Your task to perform on an android device: toggle improve location accuracy Image 0: 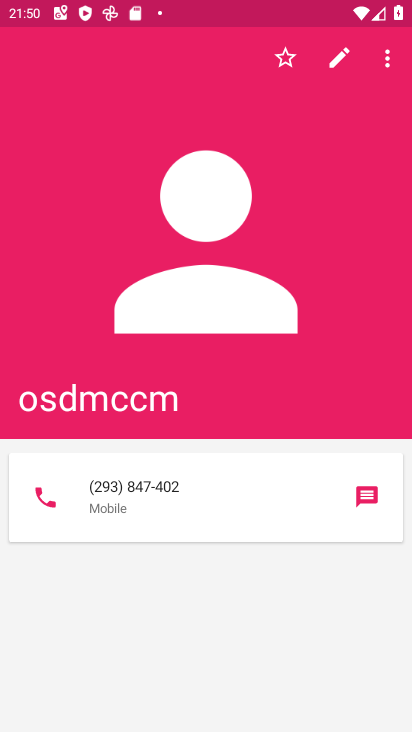
Step 0: press home button
Your task to perform on an android device: toggle improve location accuracy Image 1: 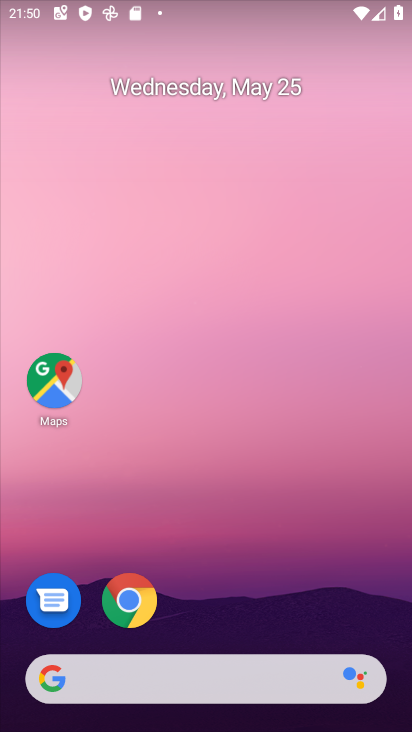
Step 1: drag from (353, 620) to (261, 208)
Your task to perform on an android device: toggle improve location accuracy Image 2: 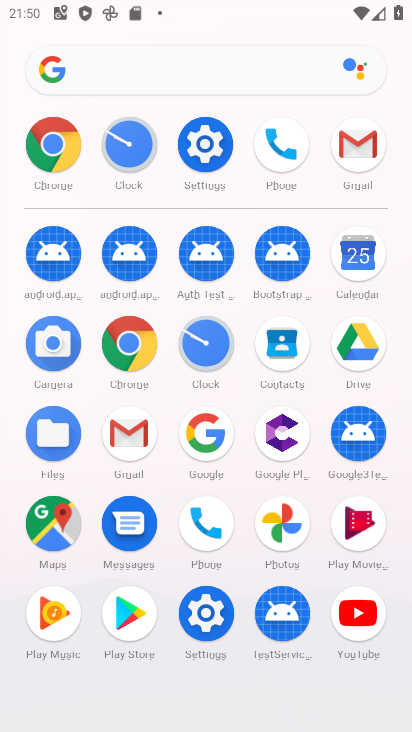
Step 2: click (206, 142)
Your task to perform on an android device: toggle improve location accuracy Image 3: 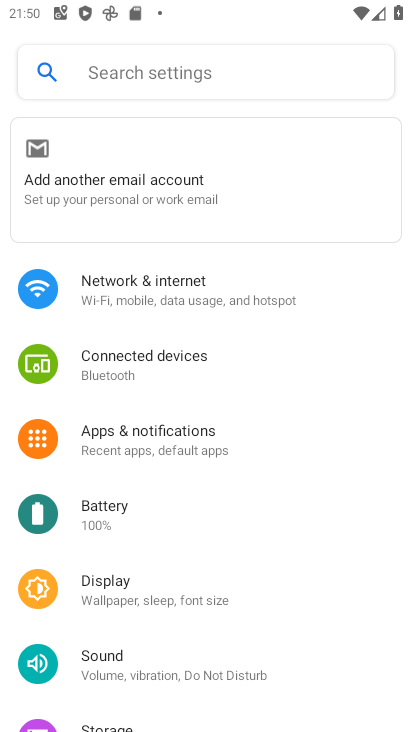
Step 3: drag from (279, 469) to (295, 364)
Your task to perform on an android device: toggle improve location accuracy Image 4: 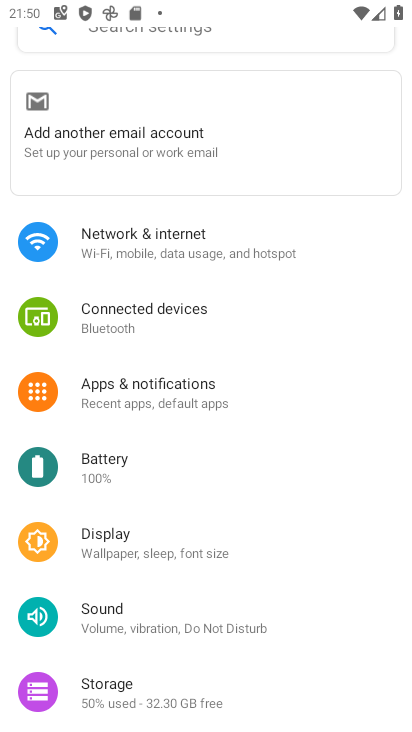
Step 4: drag from (258, 594) to (313, 293)
Your task to perform on an android device: toggle improve location accuracy Image 5: 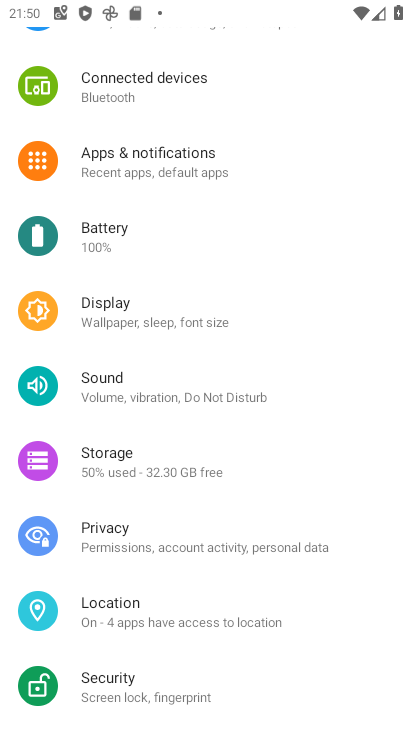
Step 5: click (212, 620)
Your task to perform on an android device: toggle improve location accuracy Image 6: 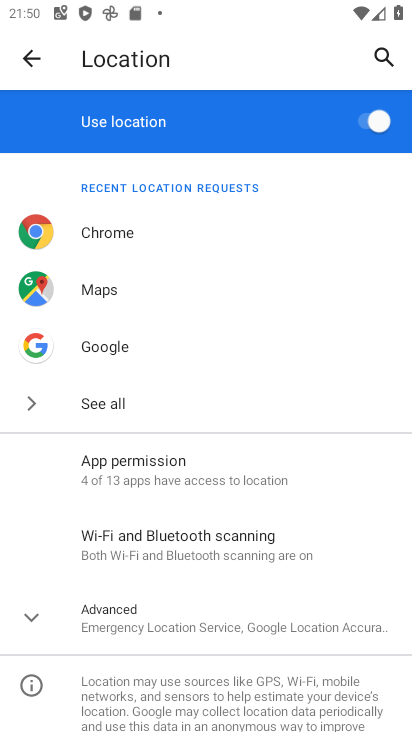
Step 6: click (212, 620)
Your task to perform on an android device: toggle improve location accuracy Image 7: 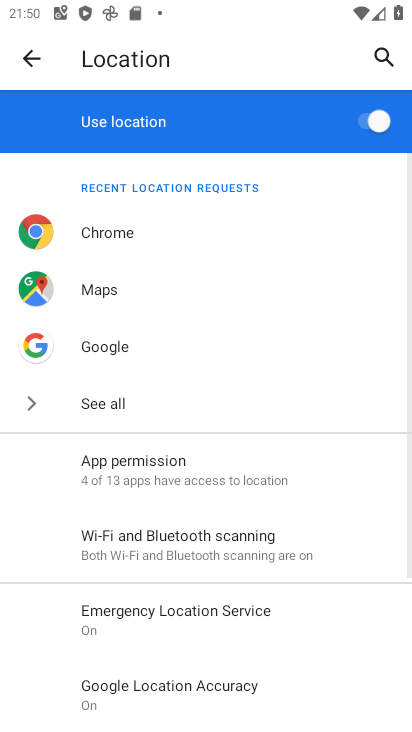
Step 7: drag from (240, 658) to (291, 438)
Your task to perform on an android device: toggle improve location accuracy Image 8: 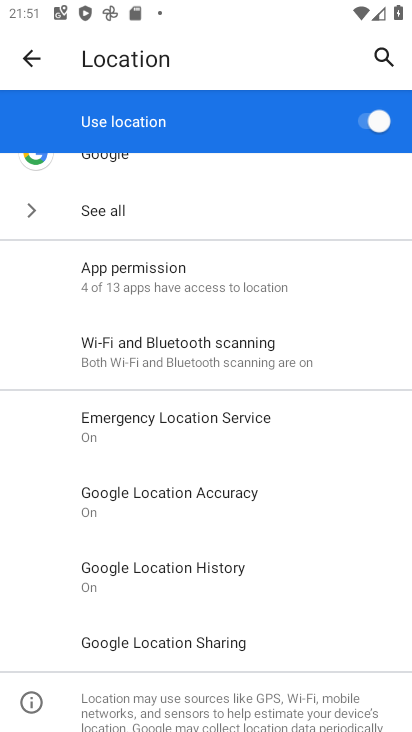
Step 8: click (207, 486)
Your task to perform on an android device: toggle improve location accuracy Image 9: 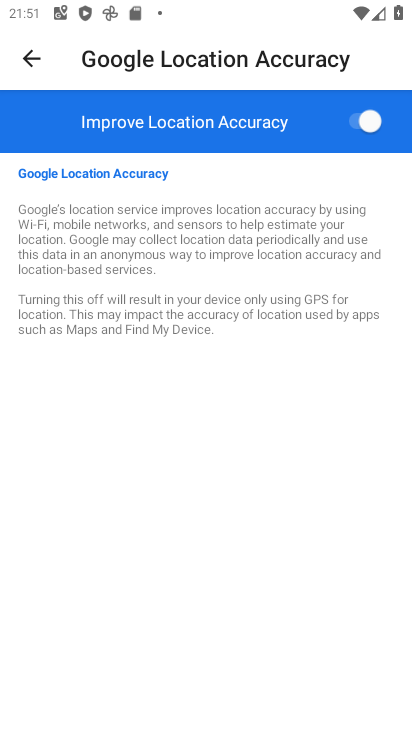
Step 9: click (356, 124)
Your task to perform on an android device: toggle improve location accuracy Image 10: 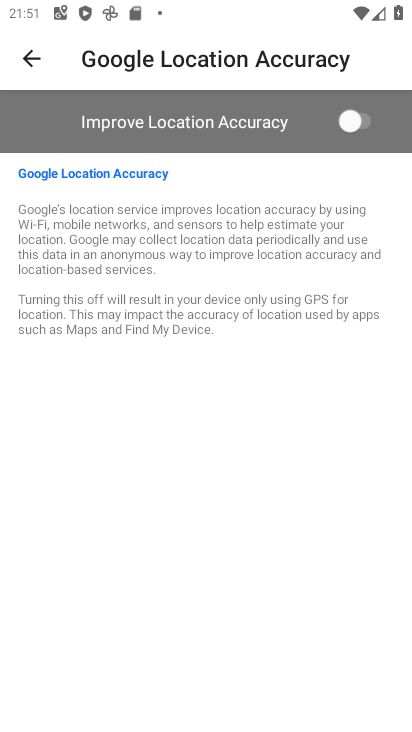
Step 10: task complete